Your task to perform on an android device: open wifi settings Image 0: 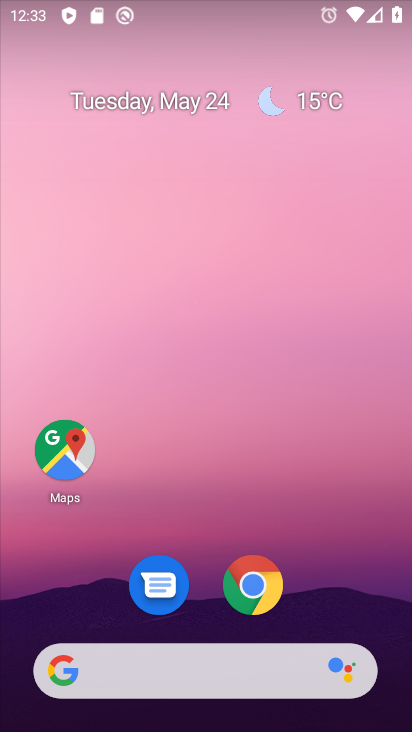
Step 0: drag from (197, 552) to (264, 15)
Your task to perform on an android device: open wifi settings Image 1: 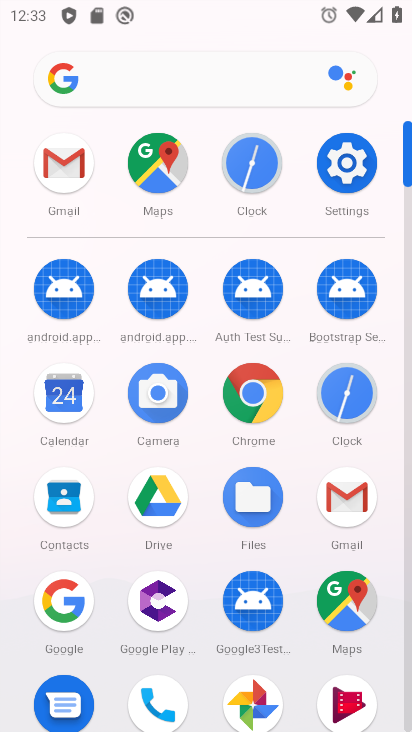
Step 1: click (334, 154)
Your task to perform on an android device: open wifi settings Image 2: 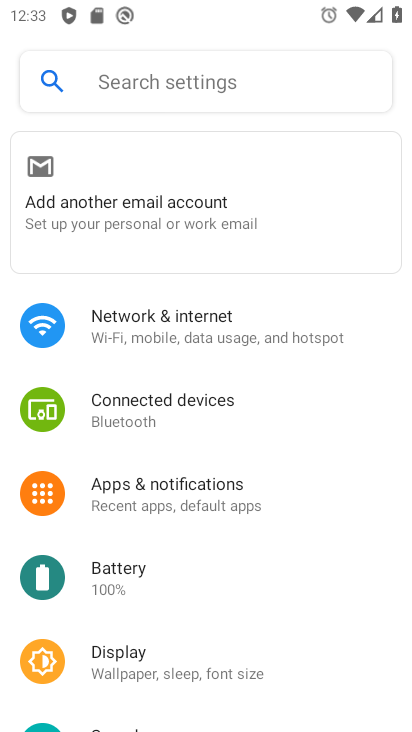
Step 2: click (198, 324)
Your task to perform on an android device: open wifi settings Image 3: 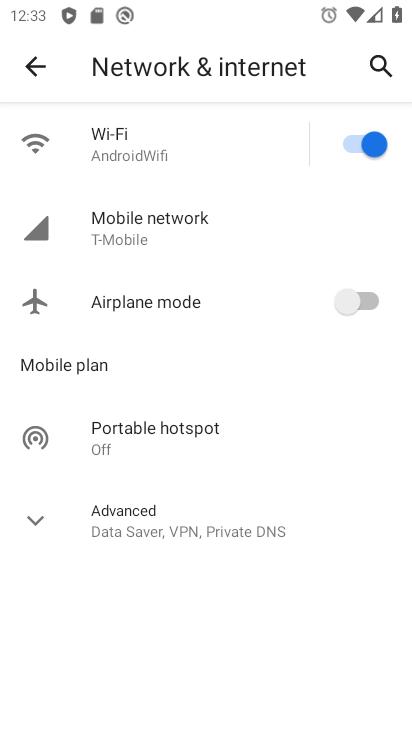
Step 3: click (176, 153)
Your task to perform on an android device: open wifi settings Image 4: 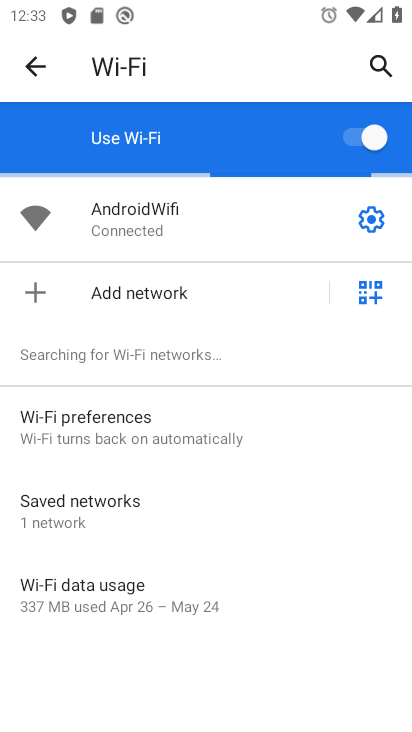
Step 4: task complete